Your task to perform on an android device: Open network settings Image 0: 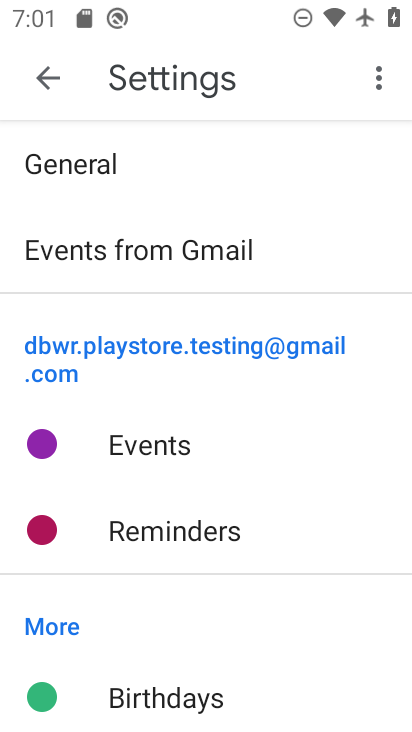
Step 0: press home button
Your task to perform on an android device: Open network settings Image 1: 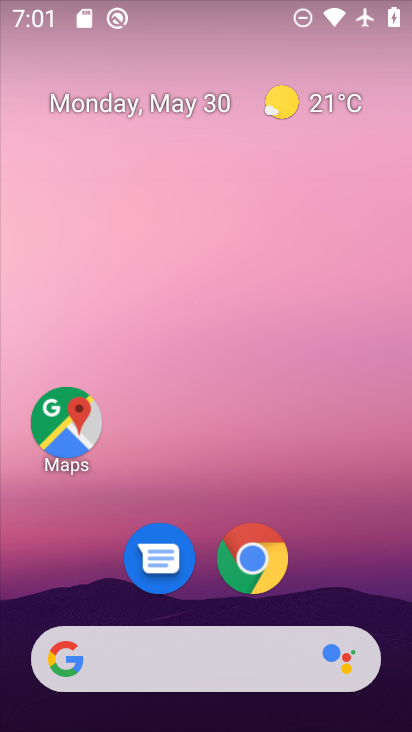
Step 1: drag from (351, 515) to (223, 97)
Your task to perform on an android device: Open network settings Image 2: 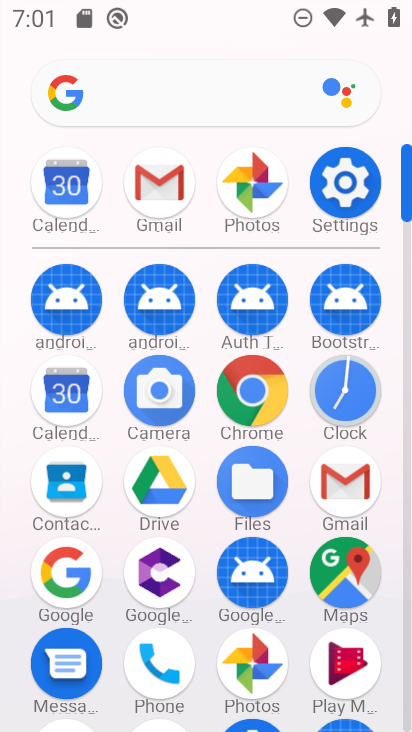
Step 2: click (346, 176)
Your task to perform on an android device: Open network settings Image 3: 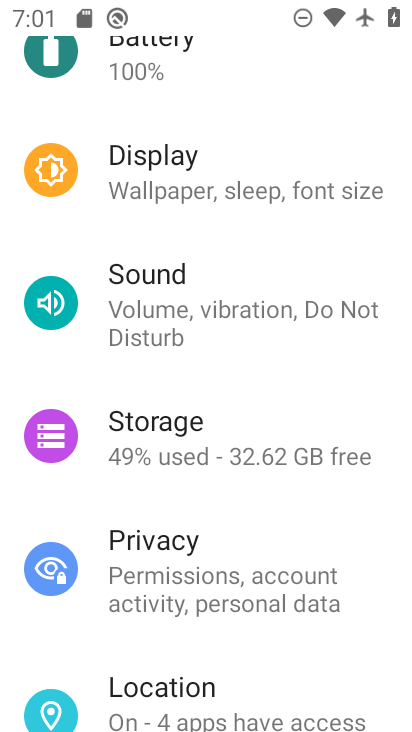
Step 3: drag from (266, 120) to (243, 487)
Your task to perform on an android device: Open network settings Image 4: 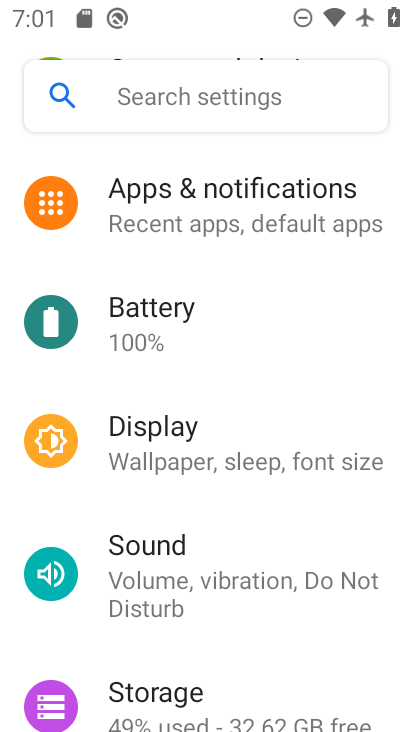
Step 4: drag from (224, 274) to (191, 583)
Your task to perform on an android device: Open network settings Image 5: 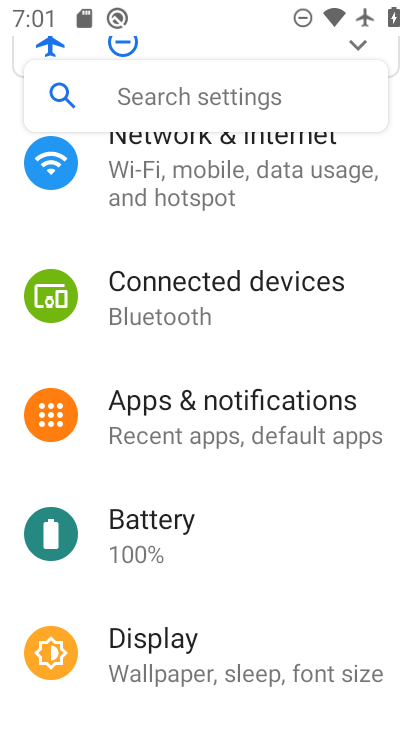
Step 5: click (167, 155)
Your task to perform on an android device: Open network settings Image 6: 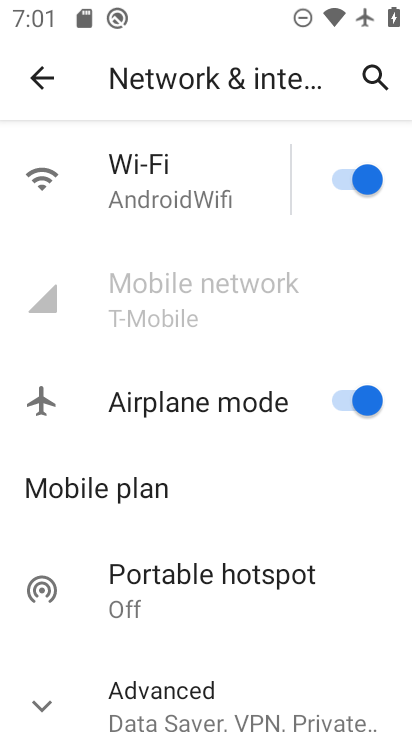
Step 6: task complete